Your task to perform on an android device: turn off smart reply in the gmail app Image 0: 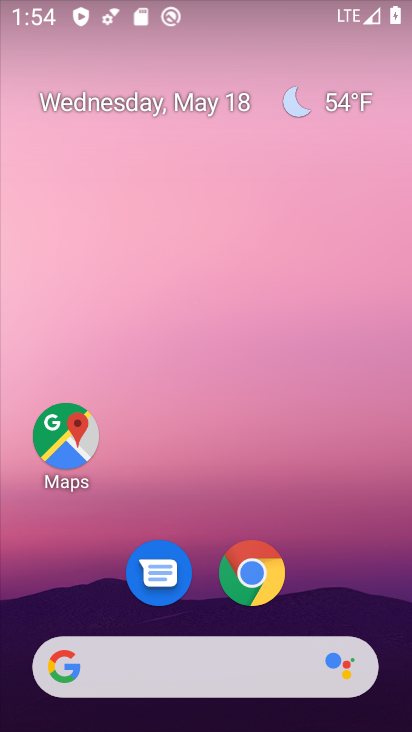
Step 0: drag from (175, 653) to (255, 99)
Your task to perform on an android device: turn off smart reply in the gmail app Image 1: 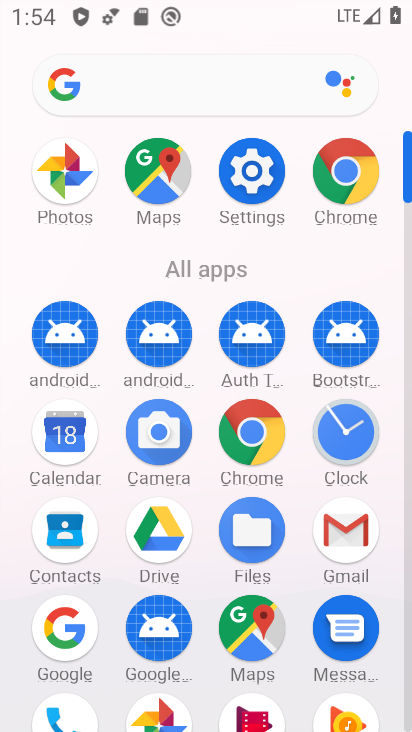
Step 1: click (347, 531)
Your task to perform on an android device: turn off smart reply in the gmail app Image 2: 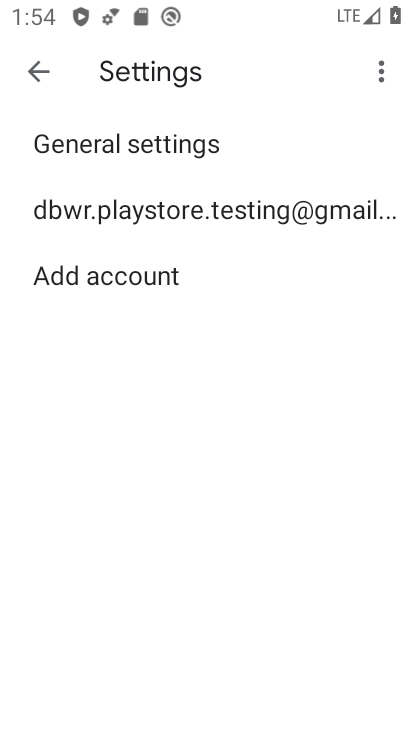
Step 2: click (181, 224)
Your task to perform on an android device: turn off smart reply in the gmail app Image 3: 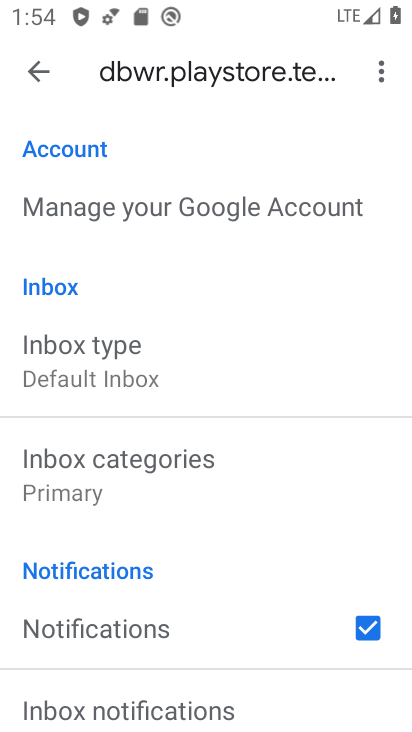
Step 3: drag from (179, 599) to (203, 81)
Your task to perform on an android device: turn off smart reply in the gmail app Image 4: 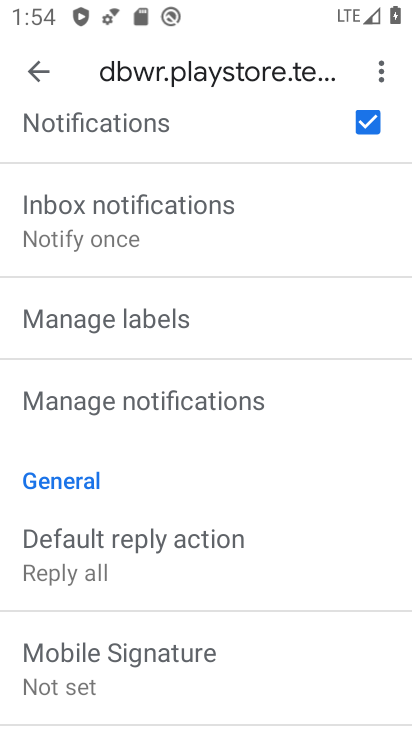
Step 4: drag from (210, 546) to (211, 51)
Your task to perform on an android device: turn off smart reply in the gmail app Image 5: 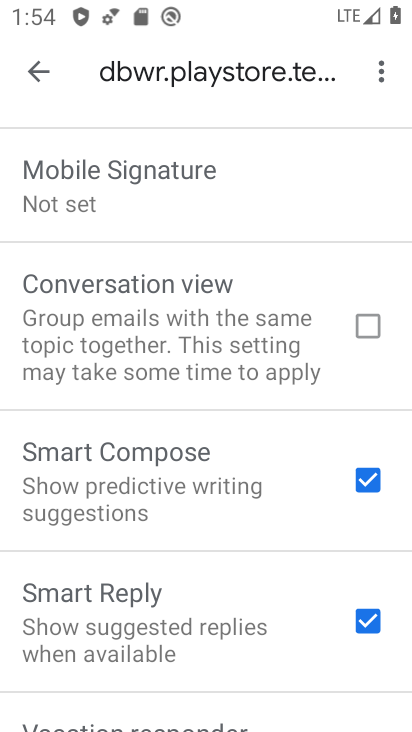
Step 5: click (366, 612)
Your task to perform on an android device: turn off smart reply in the gmail app Image 6: 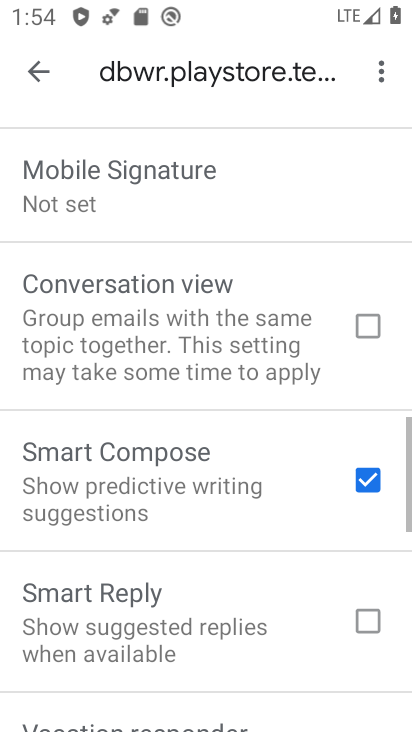
Step 6: task complete